Your task to perform on an android device: Open battery settings Image 0: 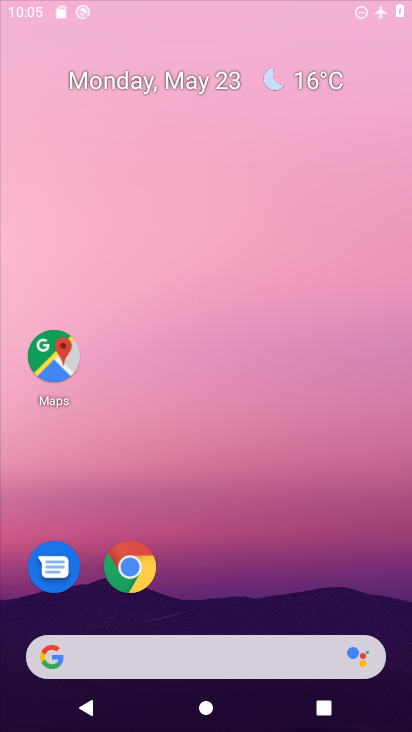
Step 0: click (230, 13)
Your task to perform on an android device: Open battery settings Image 1: 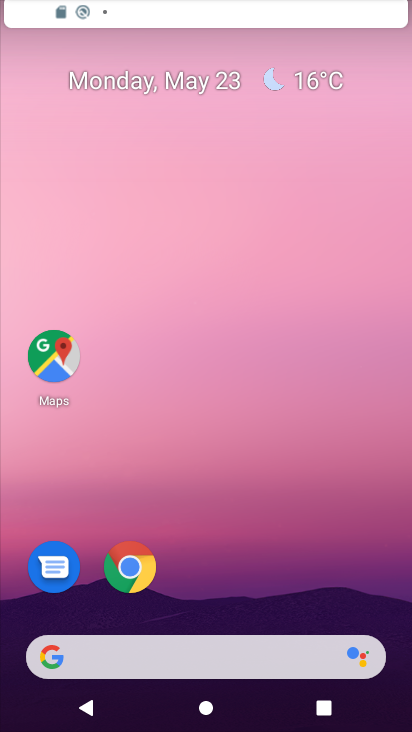
Step 1: drag from (213, 556) to (257, 52)
Your task to perform on an android device: Open battery settings Image 2: 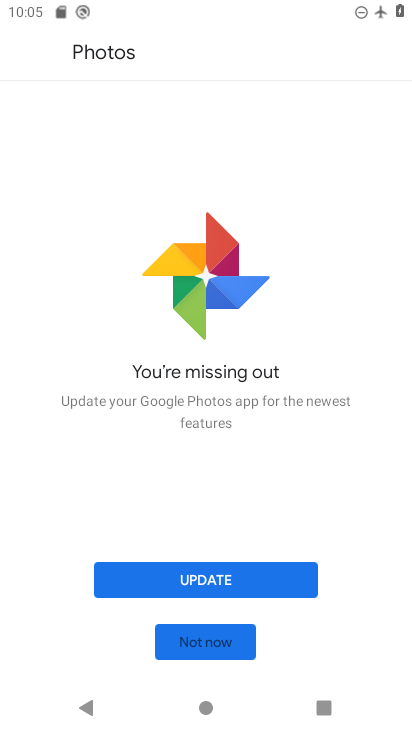
Step 2: press home button
Your task to perform on an android device: Open battery settings Image 3: 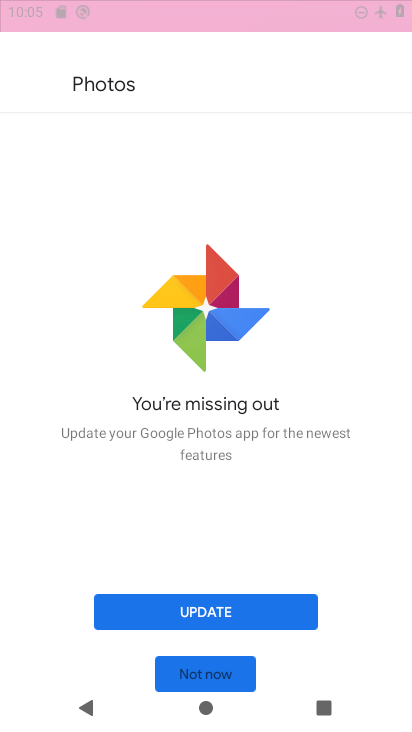
Step 3: press home button
Your task to perform on an android device: Open battery settings Image 4: 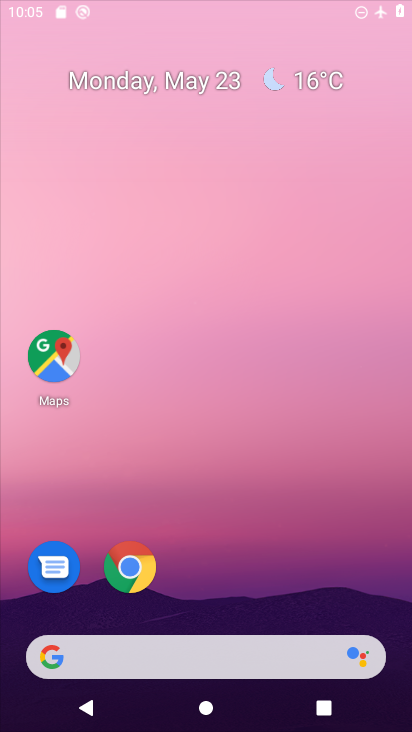
Step 4: press home button
Your task to perform on an android device: Open battery settings Image 5: 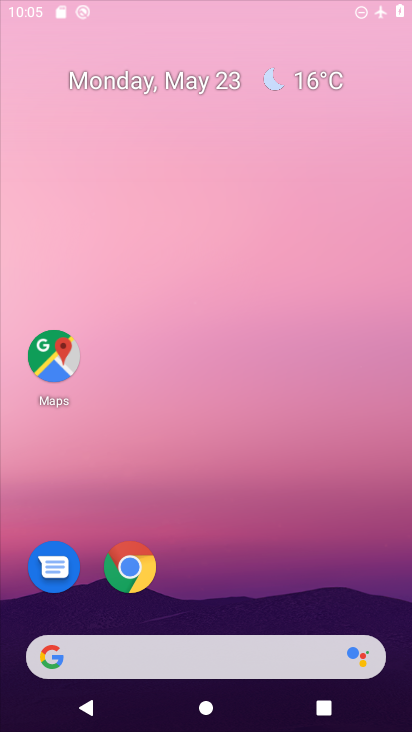
Step 5: drag from (340, 58) to (269, 3)
Your task to perform on an android device: Open battery settings Image 6: 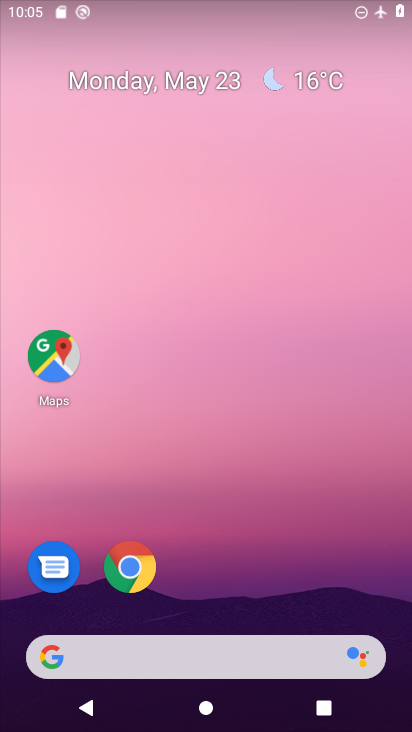
Step 6: drag from (189, 598) to (282, 47)
Your task to perform on an android device: Open battery settings Image 7: 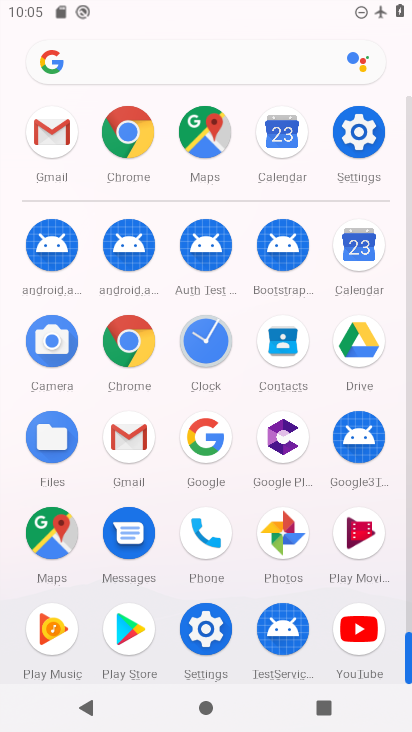
Step 7: click (361, 130)
Your task to perform on an android device: Open battery settings Image 8: 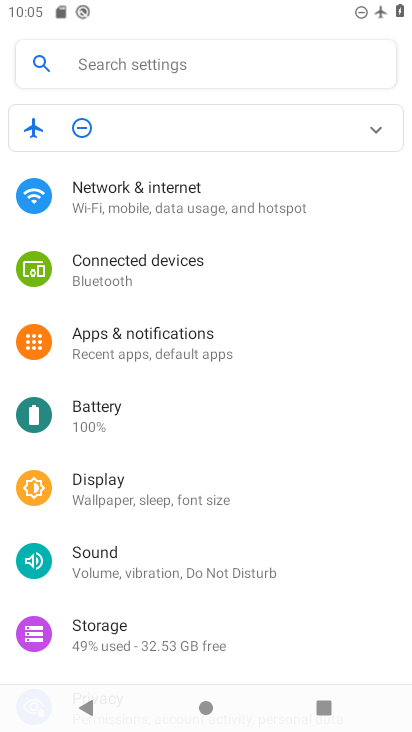
Step 8: click (129, 415)
Your task to perform on an android device: Open battery settings Image 9: 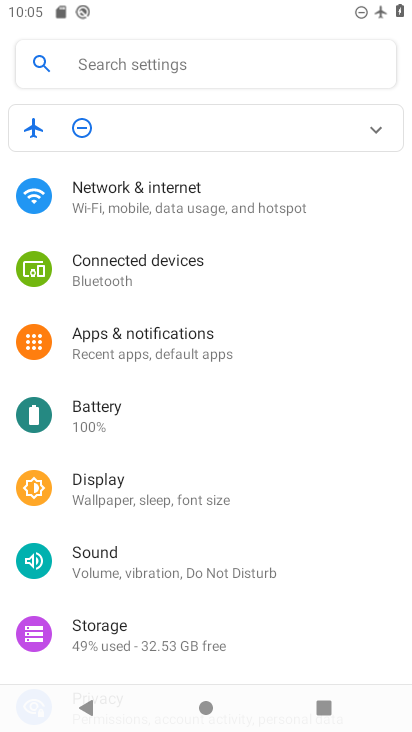
Step 9: click (129, 415)
Your task to perform on an android device: Open battery settings Image 10: 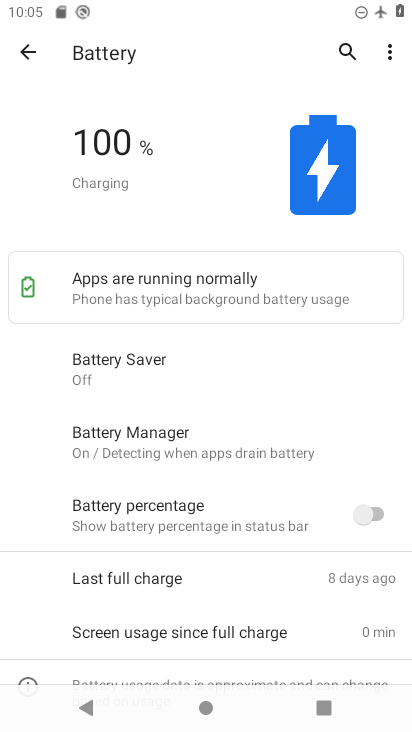
Step 10: task complete